Your task to perform on an android device: turn pop-ups on in chrome Image 0: 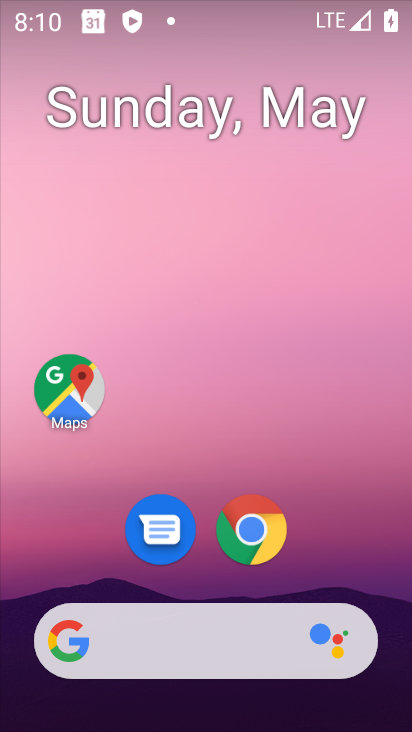
Step 0: click (264, 519)
Your task to perform on an android device: turn pop-ups on in chrome Image 1: 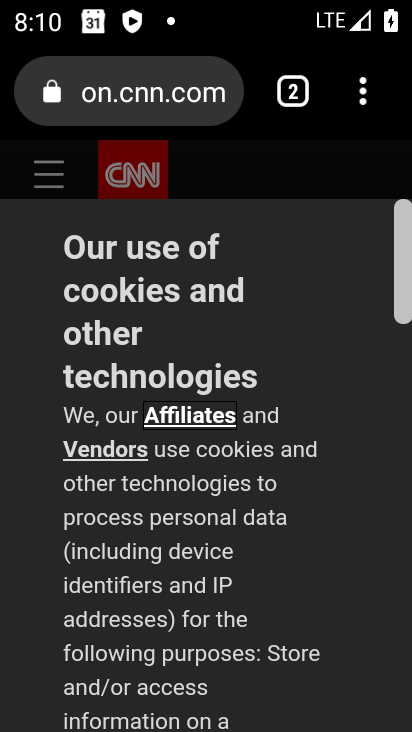
Step 1: drag from (363, 84) to (120, 545)
Your task to perform on an android device: turn pop-ups on in chrome Image 2: 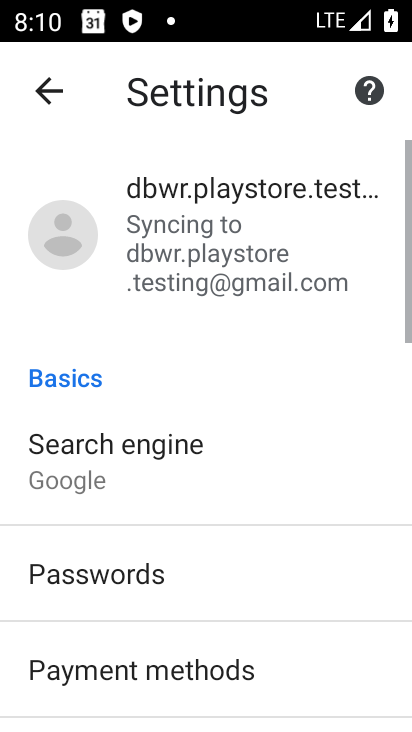
Step 2: drag from (145, 606) to (226, 47)
Your task to perform on an android device: turn pop-ups on in chrome Image 3: 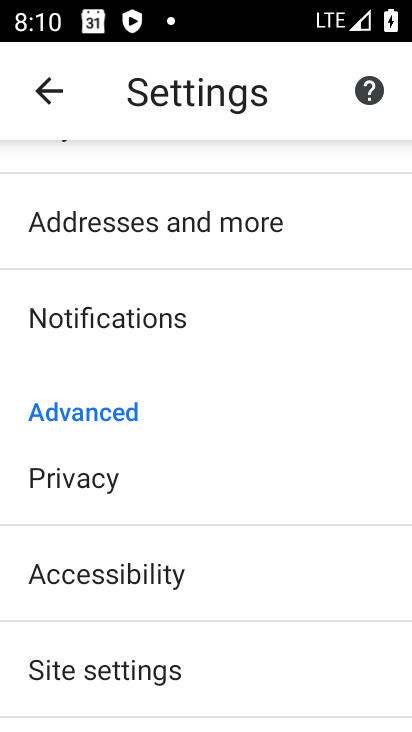
Step 3: click (152, 671)
Your task to perform on an android device: turn pop-ups on in chrome Image 4: 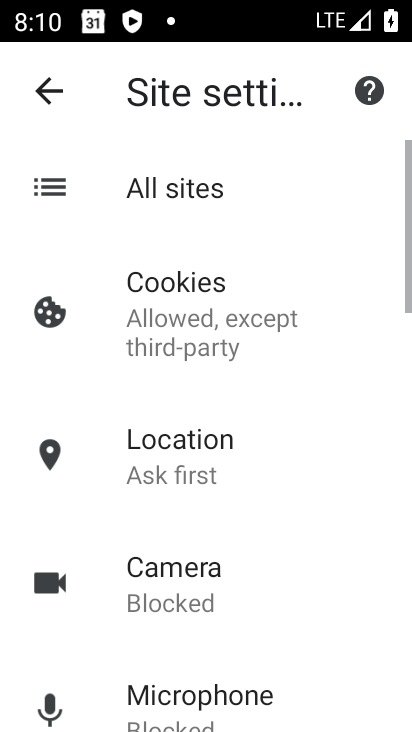
Step 4: drag from (164, 584) to (243, 85)
Your task to perform on an android device: turn pop-ups on in chrome Image 5: 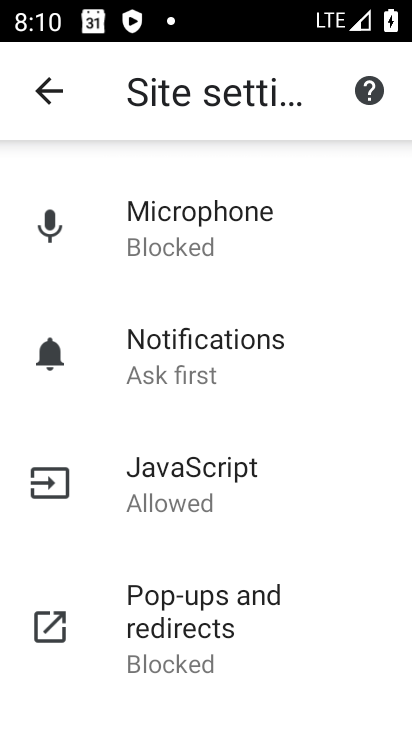
Step 5: click (157, 600)
Your task to perform on an android device: turn pop-ups on in chrome Image 6: 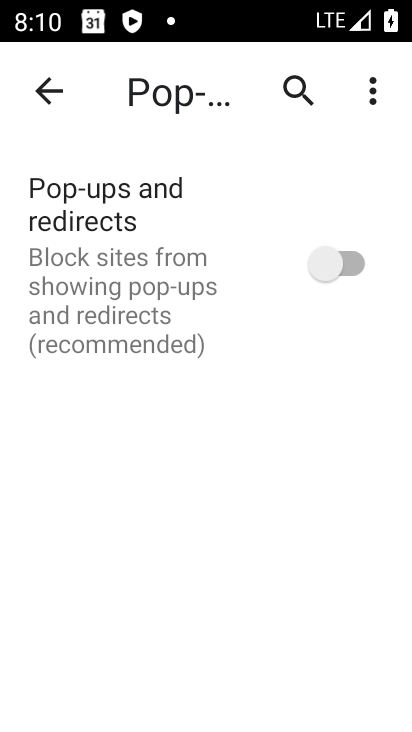
Step 6: click (326, 259)
Your task to perform on an android device: turn pop-ups on in chrome Image 7: 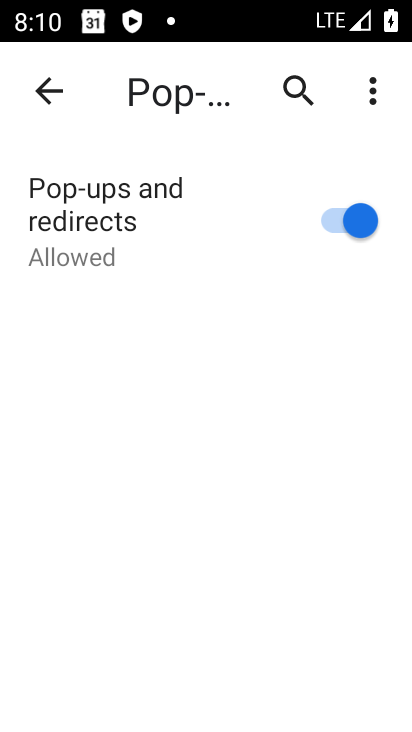
Step 7: task complete